Your task to perform on an android device: Open the calendar and show me this week's events? Image 0: 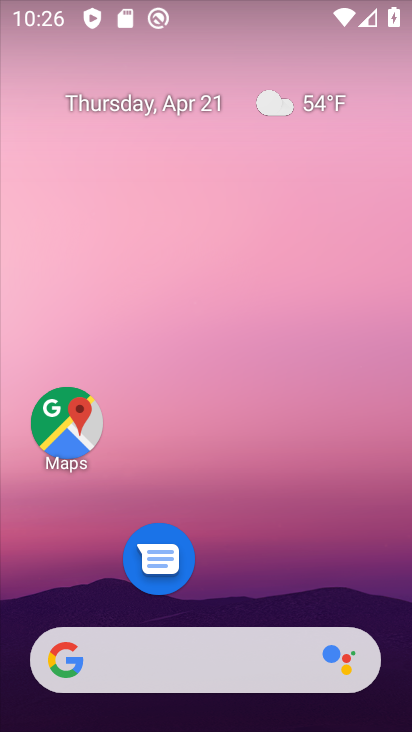
Step 0: drag from (272, 515) to (305, 109)
Your task to perform on an android device: Open the calendar and show me this week's events? Image 1: 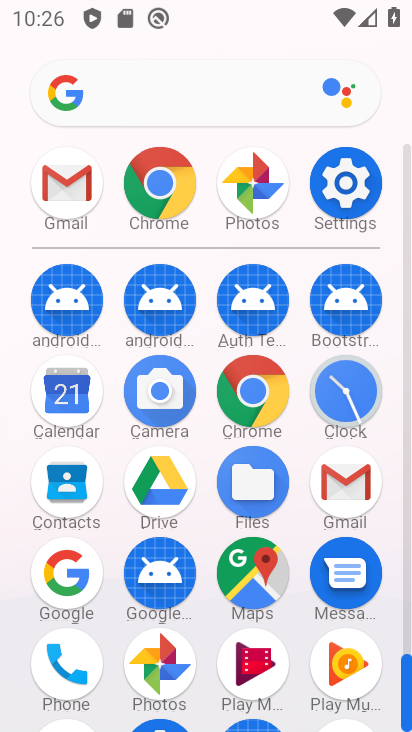
Step 1: click (73, 385)
Your task to perform on an android device: Open the calendar and show me this week's events? Image 2: 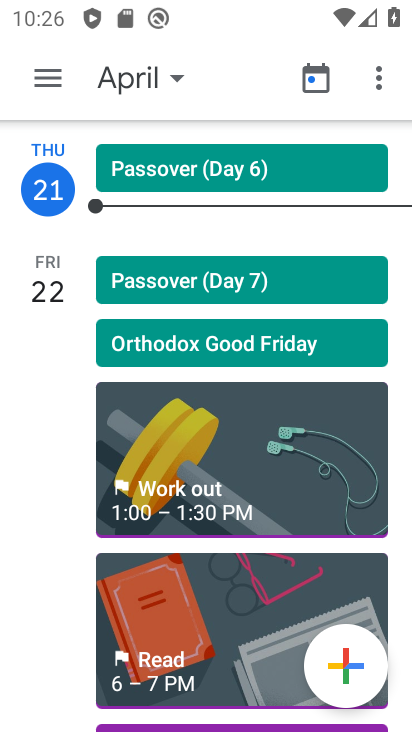
Step 2: drag from (237, 511) to (286, 155)
Your task to perform on an android device: Open the calendar and show me this week's events? Image 3: 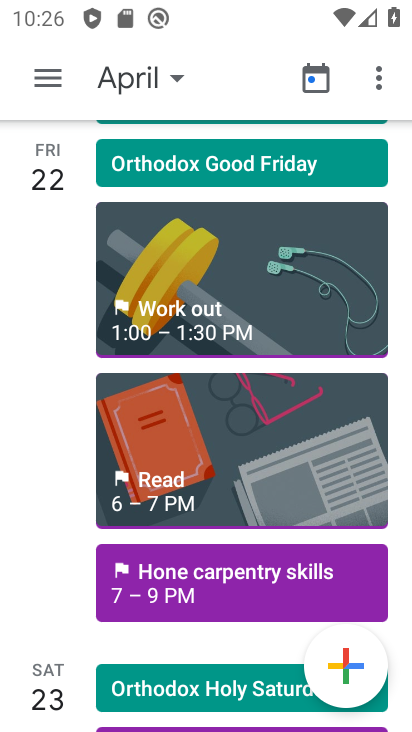
Step 3: drag from (237, 552) to (285, 149)
Your task to perform on an android device: Open the calendar and show me this week's events? Image 4: 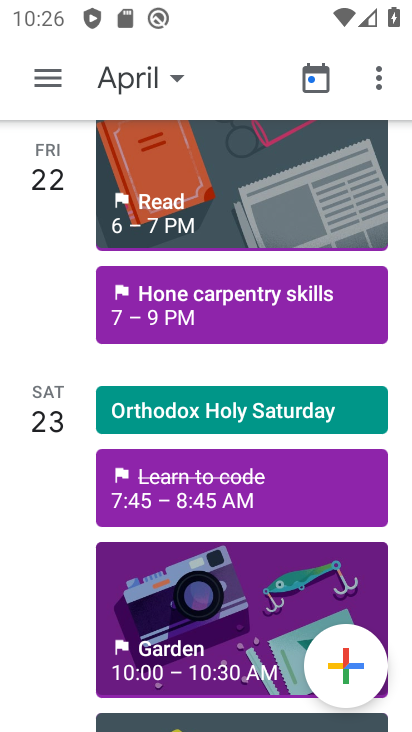
Step 4: drag from (216, 532) to (317, 122)
Your task to perform on an android device: Open the calendar and show me this week's events? Image 5: 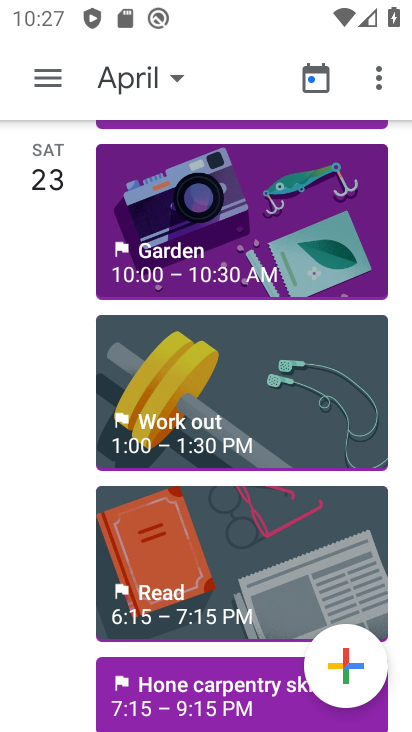
Step 5: drag from (168, 610) to (244, 131)
Your task to perform on an android device: Open the calendar and show me this week's events? Image 6: 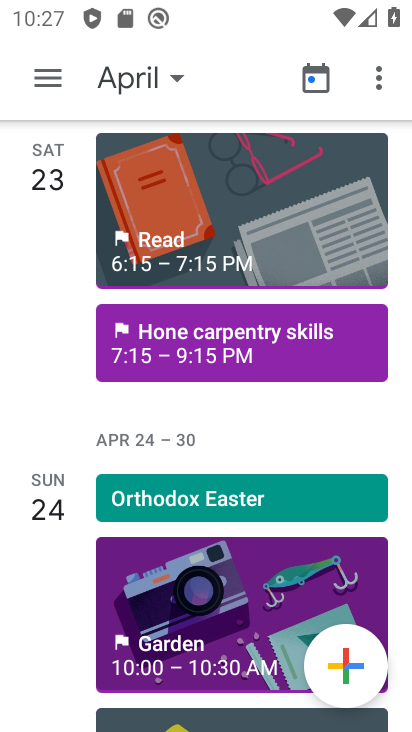
Step 6: click (241, 340)
Your task to perform on an android device: Open the calendar and show me this week's events? Image 7: 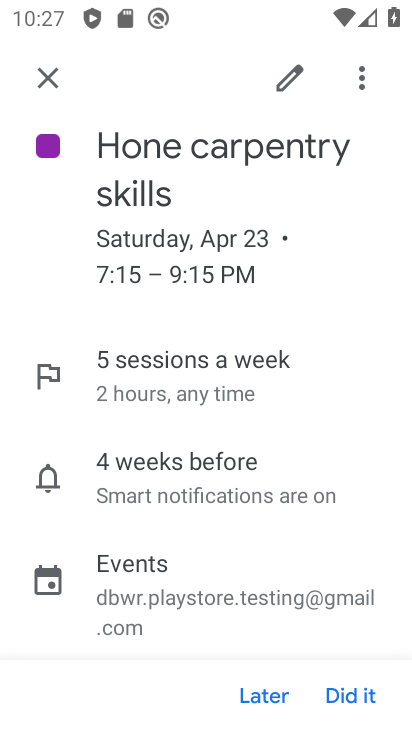
Step 7: task complete